Your task to perform on an android device: turn on improve location accuracy Image 0: 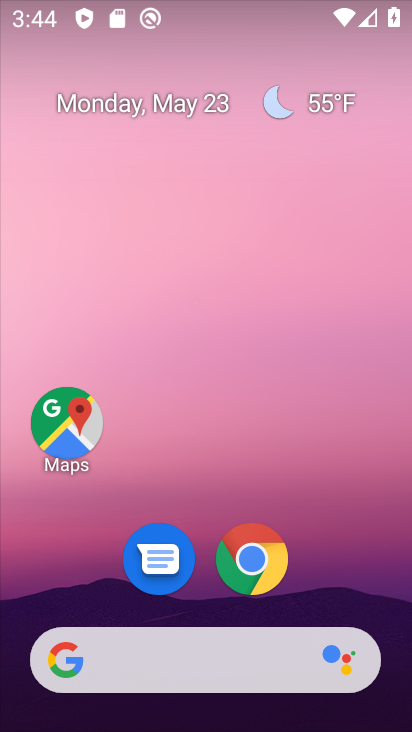
Step 0: drag from (268, 610) to (195, 131)
Your task to perform on an android device: turn on improve location accuracy Image 1: 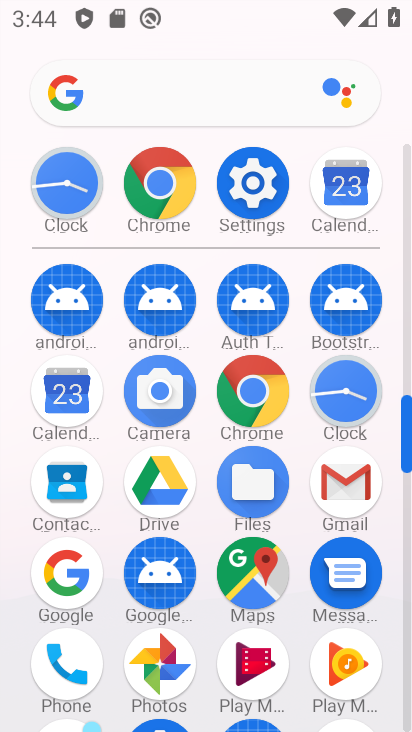
Step 1: click (255, 198)
Your task to perform on an android device: turn on improve location accuracy Image 2: 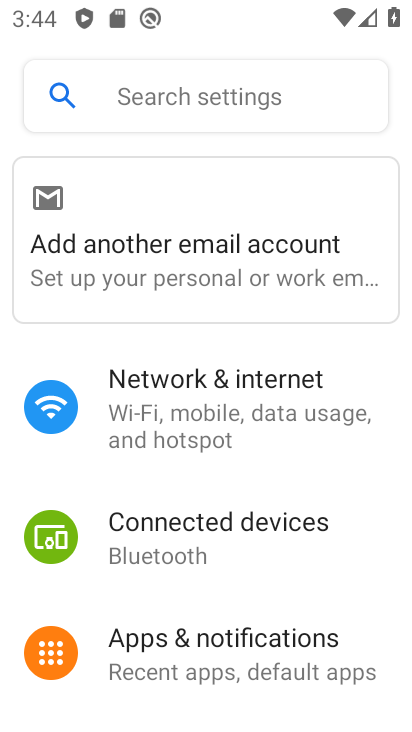
Step 2: drag from (156, 362) to (188, 315)
Your task to perform on an android device: turn on improve location accuracy Image 3: 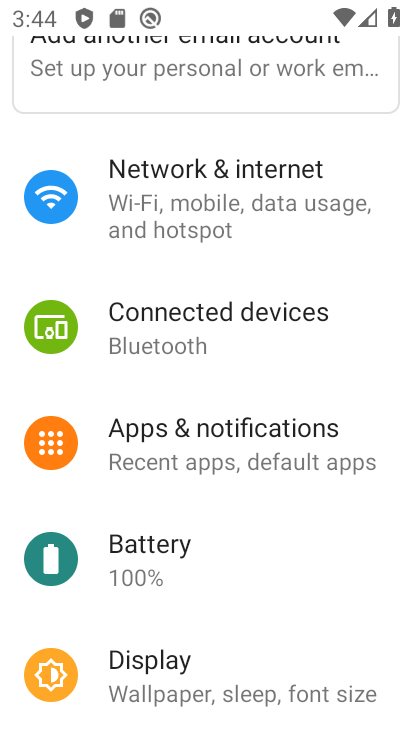
Step 3: drag from (137, 434) to (135, 219)
Your task to perform on an android device: turn on improve location accuracy Image 4: 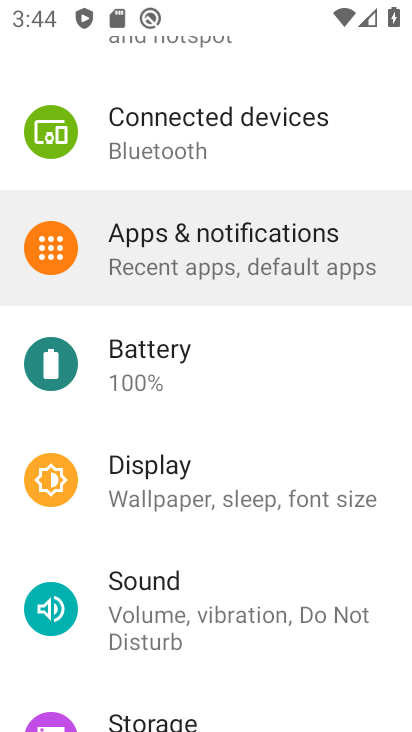
Step 4: drag from (169, 462) to (169, 180)
Your task to perform on an android device: turn on improve location accuracy Image 5: 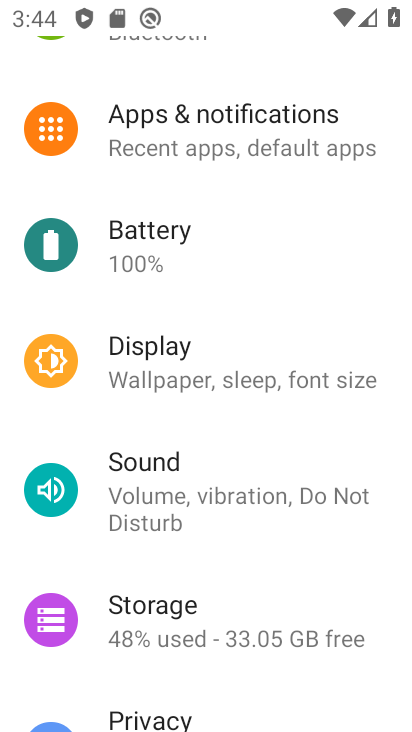
Step 5: drag from (218, 611) to (170, 185)
Your task to perform on an android device: turn on improve location accuracy Image 6: 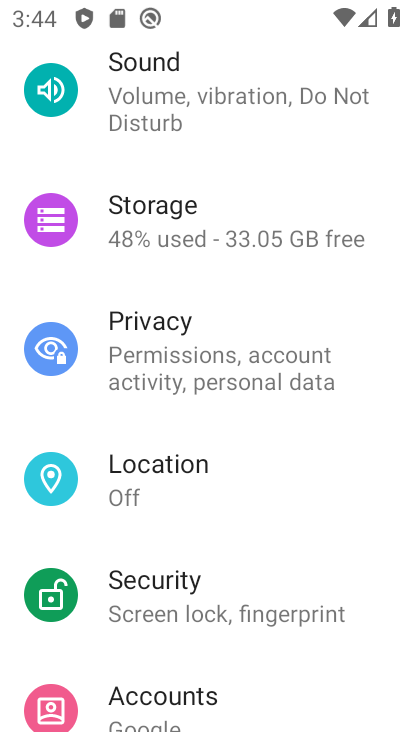
Step 6: drag from (240, 558) to (224, 202)
Your task to perform on an android device: turn on improve location accuracy Image 7: 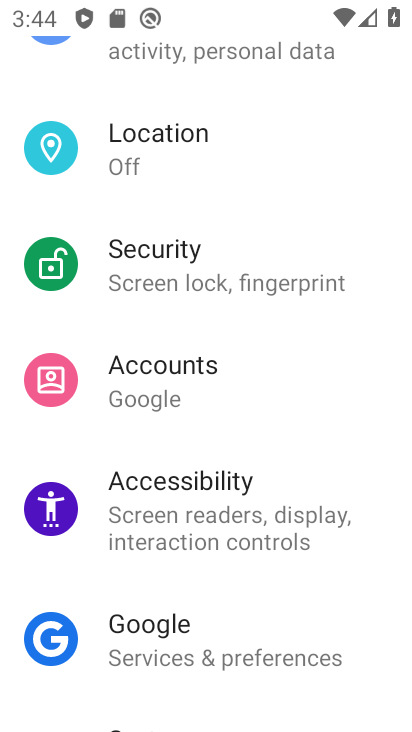
Step 7: drag from (162, 461) to (162, 151)
Your task to perform on an android device: turn on improve location accuracy Image 8: 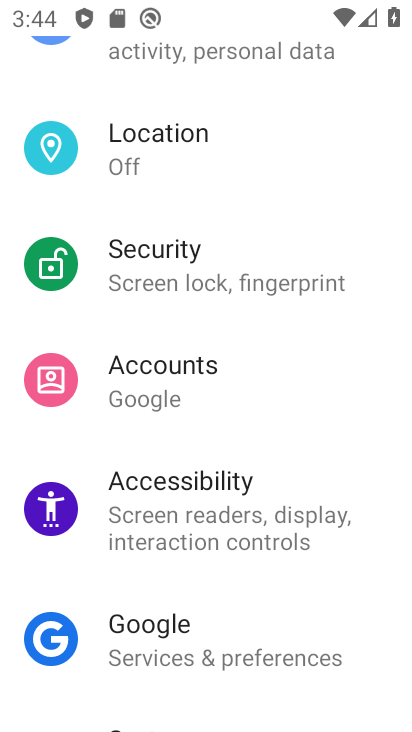
Step 8: drag from (169, 470) to (169, 172)
Your task to perform on an android device: turn on improve location accuracy Image 9: 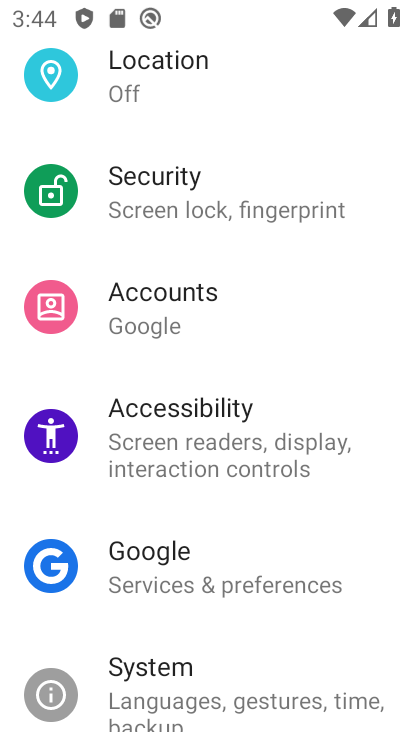
Step 9: drag from (185, 581) to (142, 154)
Your task to perform on an android device: turn on improve location accuracy Image 10: 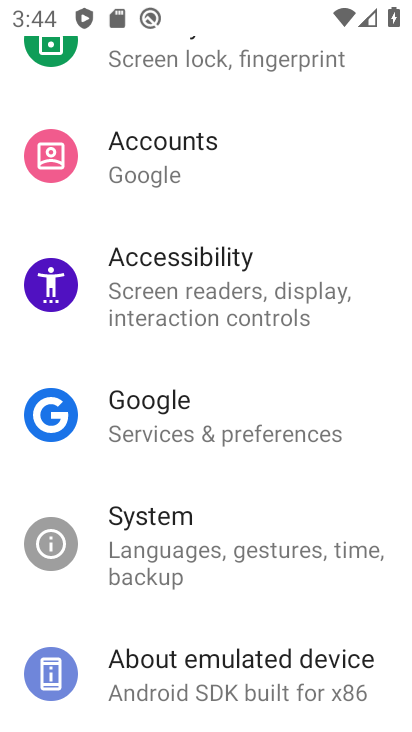
Step 10: drag from (170, 591) to (131, 72)
Your task to perform on an android device: turn on improve location accuracy Image 11: 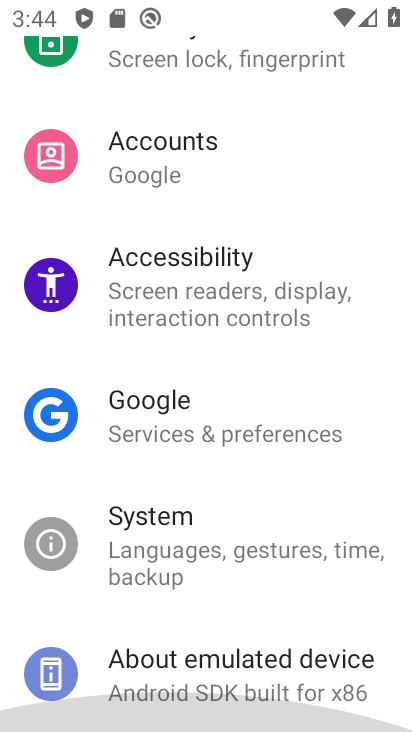
Step 11: click (149, 172)
Your task to perform on an android device: turn on improve location accuracy Image 12: 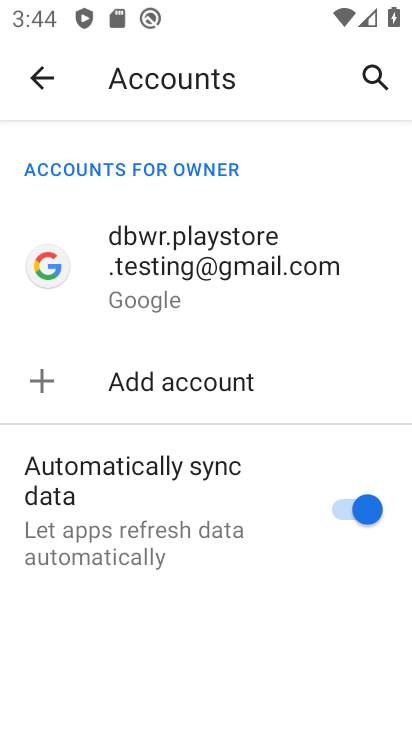
Step 12: click (39, 77)
Your task to perform on an android device: turn on improve location accuracy Image 13: 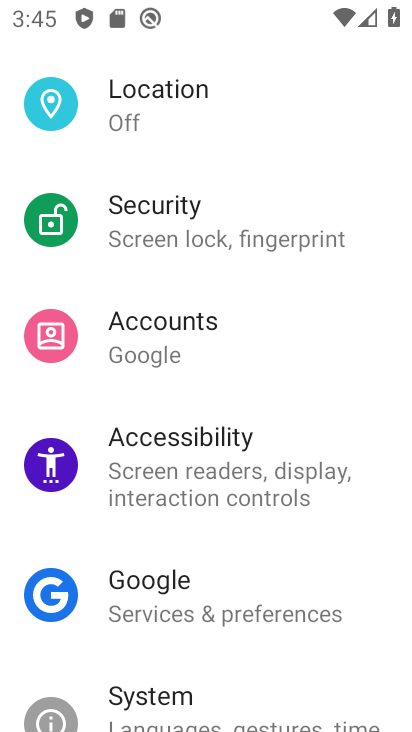
Step 13: drag from (162, 314) to (191, 630)
Your task to perform on an android device: turn on improve location accuracy Image 14: 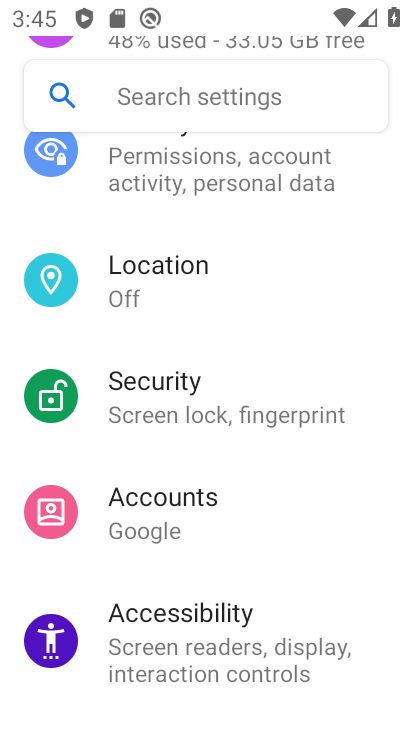
Step 14: drag from (161, 294) to (161, 605)
Your task to perform on an android device: turn on improve location accuracy Image 15: 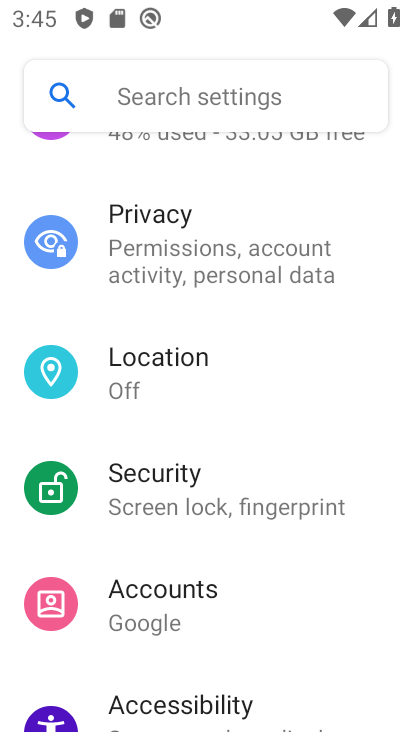
Step 15: click (136, 344)
Your task to perform on an android device: turn on improve location accuracy Image 16: 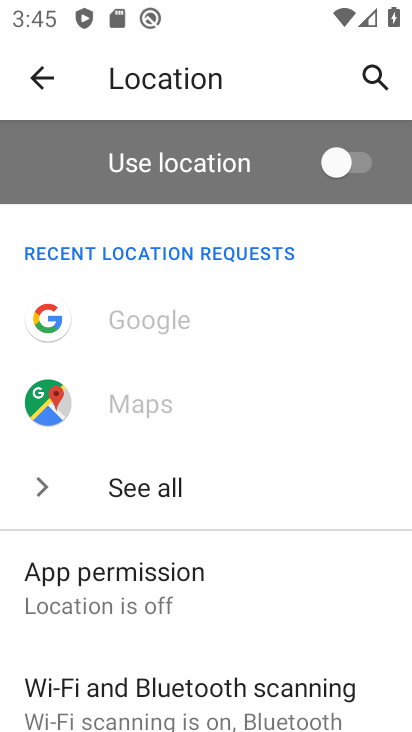
Step 16: drag from (174, 496) to (150, 173)
Your task to perform on an android device: turn on improve location accuracy Image 17: 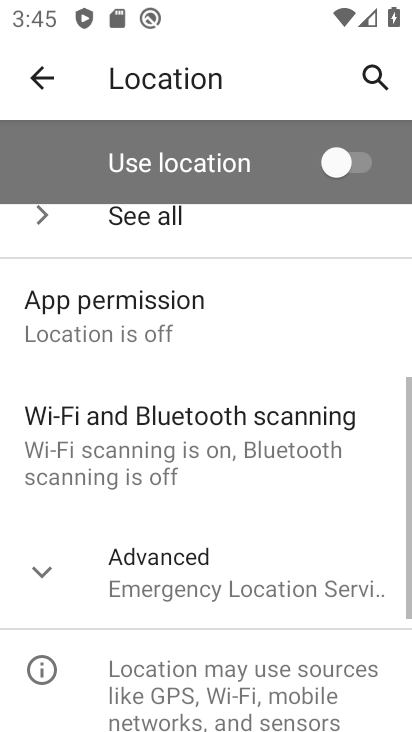
Step 17: drag from (167, 440) to (167, 300)
Your task to perform on an android device: turn on improve location accuracy Image 18: 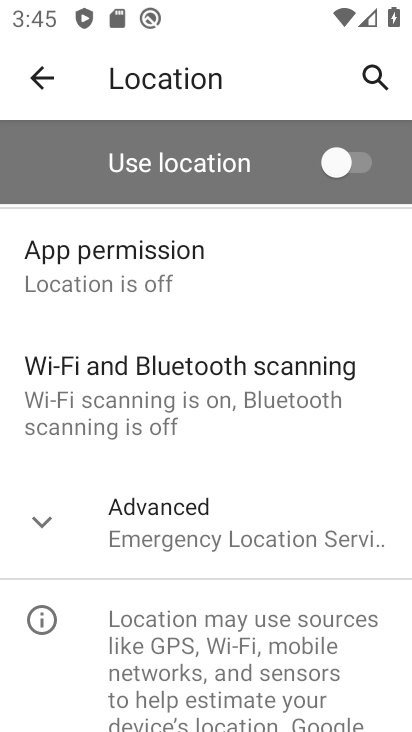
Step 18: click (185, 527)
Your task to perform on an android device: turn on improve location accuracy Image 19: 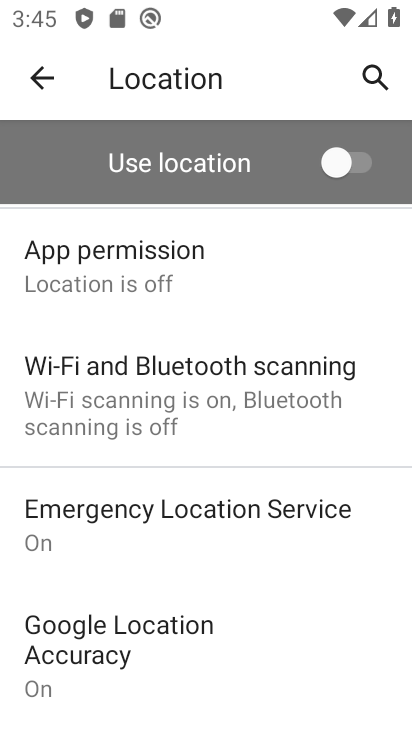
Step 19: drag from (135, 667) to (164, 424)
Your task to perform on an android device: turn on improve location accuracy Image 20: 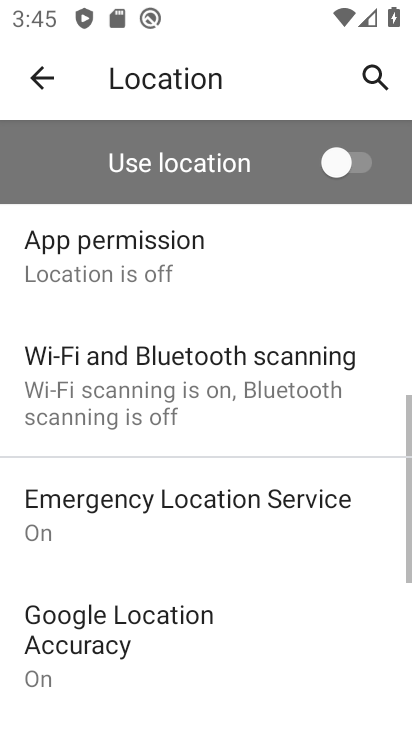
Step 20: drag from (188, 467) to (199, 391)
Your task to perform on an android device: turn on improve location accuracy Image 21: 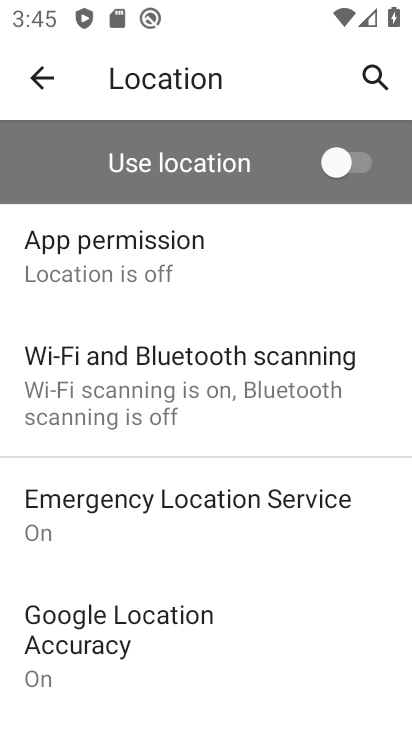
Step 21: click (92, 627)
Your task to perform on an android device: turn on improve location accuracy Image 22: 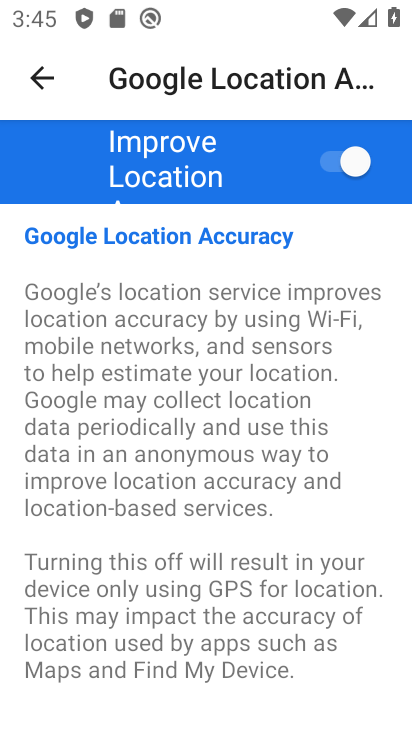
Step 22: task complete